Your task to perform on an android device: Open the stopwatch Image 0: 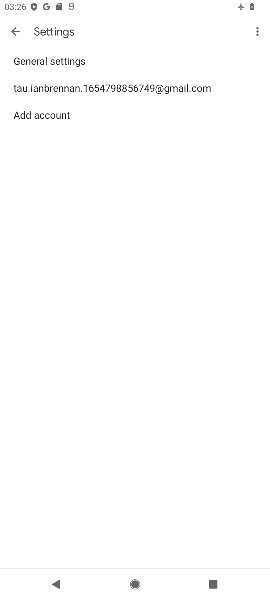
Step 0: press home button
Your task to perform on an android device: Open the stopwatch Image 1: 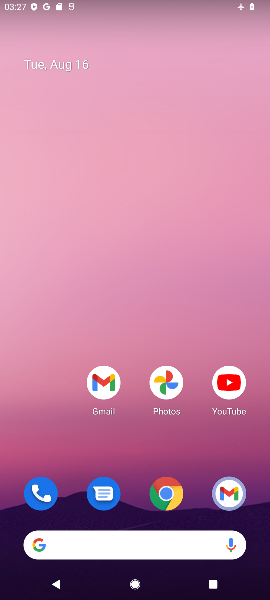
Step 1: drag from (59, 461) to (72, 119)
Your task to perform on an android device: Open the stopwatch Image 2: 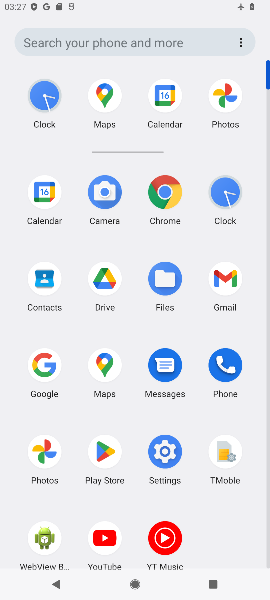
Step 2: click (229, 190)
Your task to perform on an android device: Open the stopwatch Image 3: 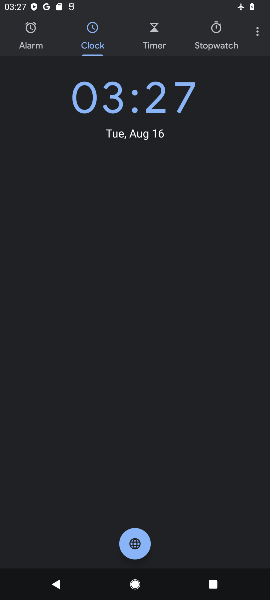
Step 3: click (216, 31)
Your task to perform on an android device: Open the stopwatch Image 4: 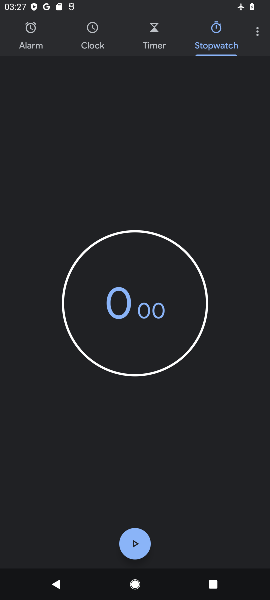
Step 4: task complete